Your task to perform on an android device: open sync settings in chrome Image 0: 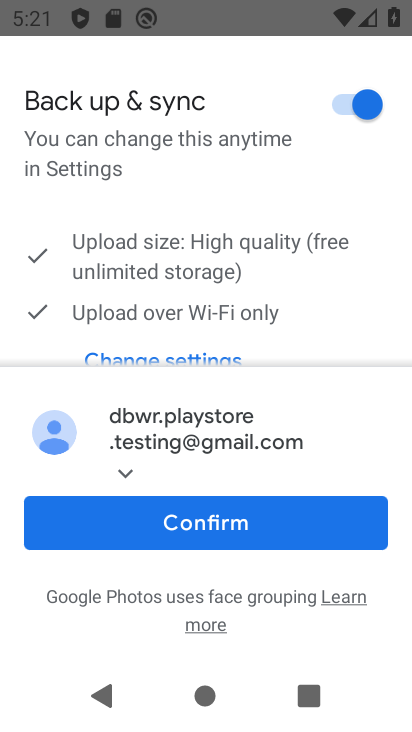
Step 0: press home button
Your task to perform on an android device: open sync settings in chrome Image 1: 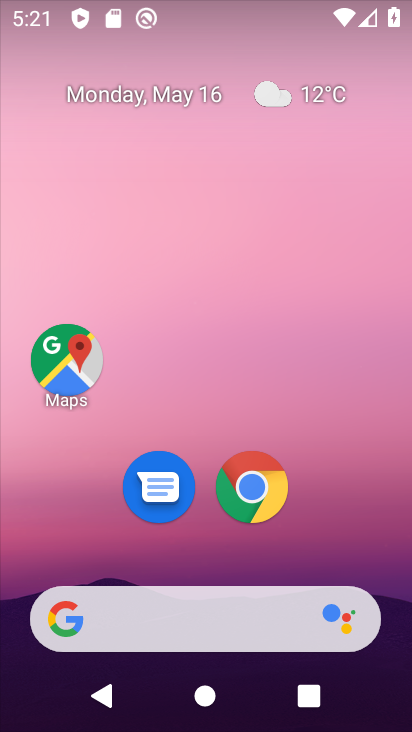
Step 1: click (258, 478)
Your task to perform on an android device: open sync settings in chrome Image 2: 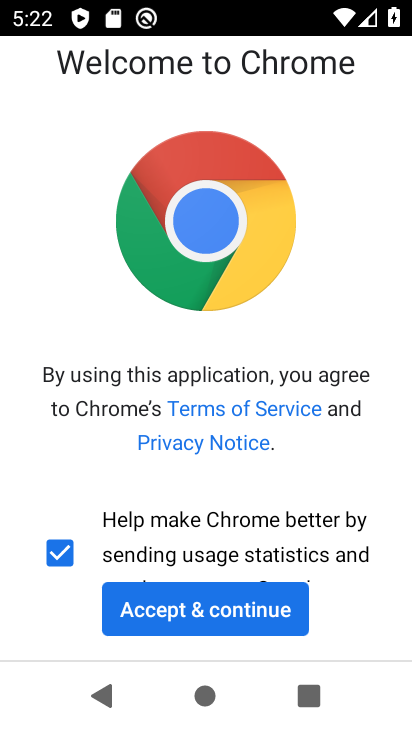
Step 2: click (140, 612)
Your task to perform on an android device: open sync settings in chrome Image 3: 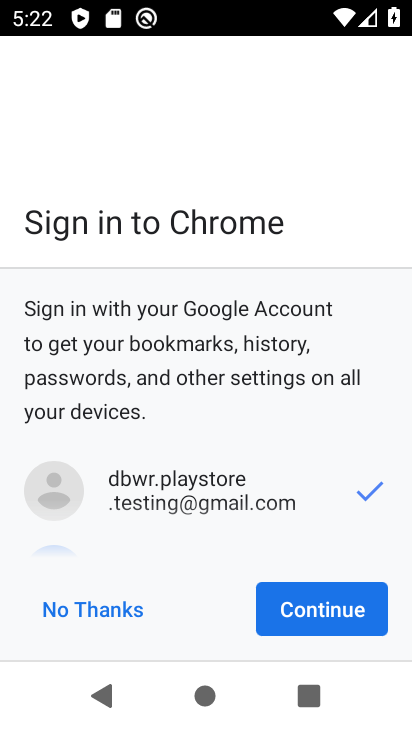
Step 3: click (331, 643)
Your task to perform on an android device: open sync settings in chrome Image 4: 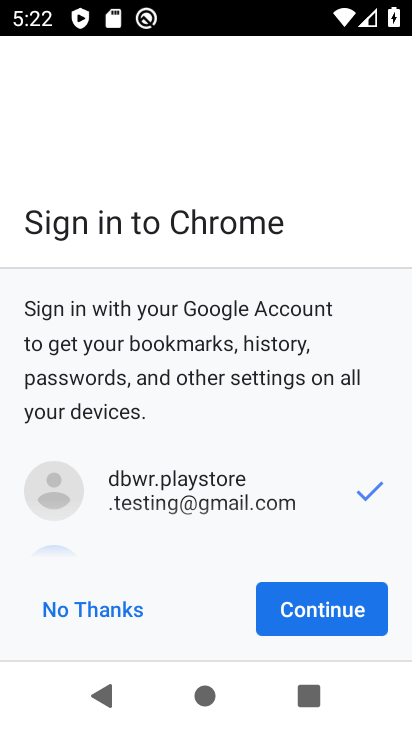
Step 4: click (335, 629)
Your task to perform on an android device: open sync settings in chrome Image 5: 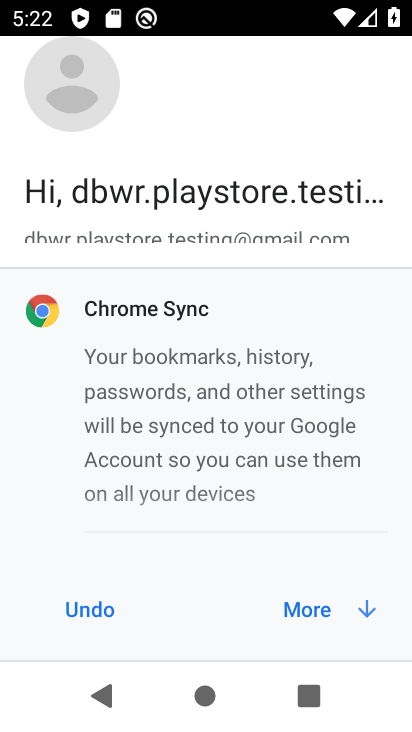
Step 5: click (327, 622)
Your task to perform on an android device: open sync settings in chrome Image 6: 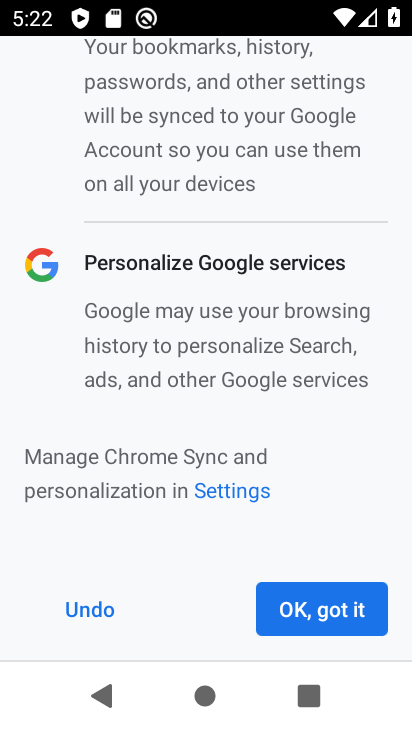
Step 6: click (327, 620)
Your task to perform on an android device: open sync settings in chrome Image 7: 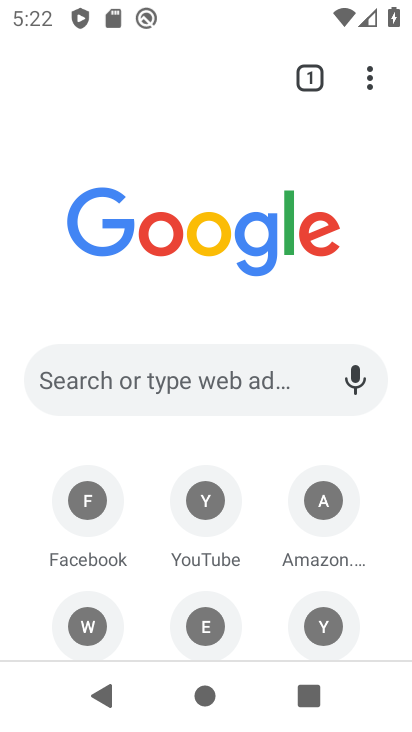
Step 7: drag from (372, 68) to (197, 527)
Your task to perform on an android device: open sync settings in chrome Image 8: 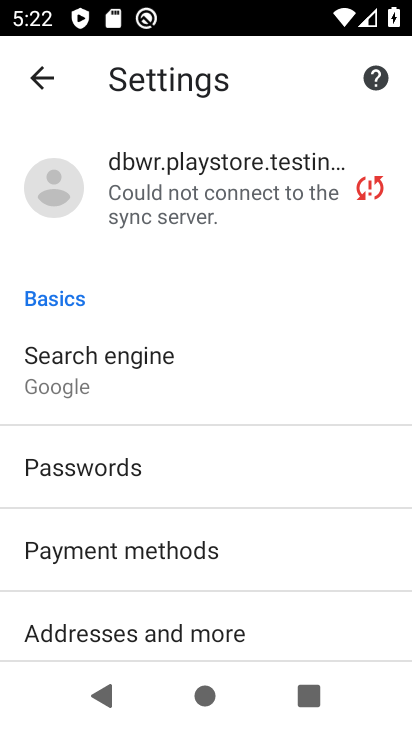
Step 8: drag from (142, 373) to (263, 173)
Your task to perform on an android device: open sync settings in chrome Image 9: 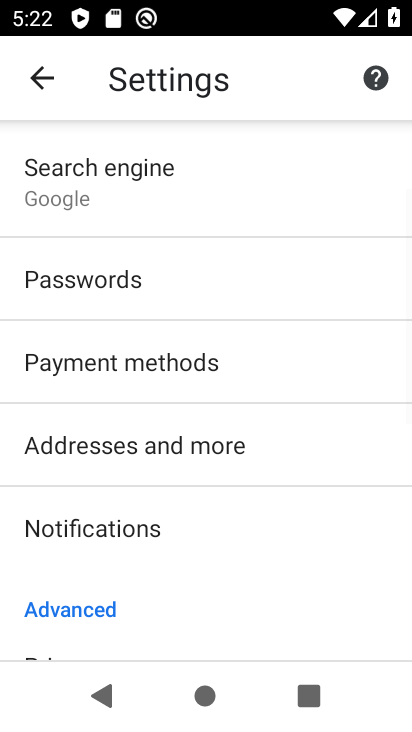
Step 9: drag from (260, 188) to (295, 606)
Your task to perform on an android device: open sync settings in chrome Image 10: 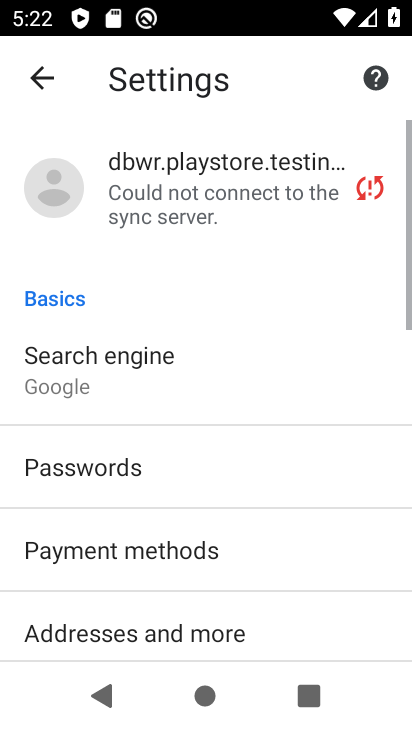
Step 10: click (268, 198)
Your task to perform on an android device: open sync settings in chrome Image 11: 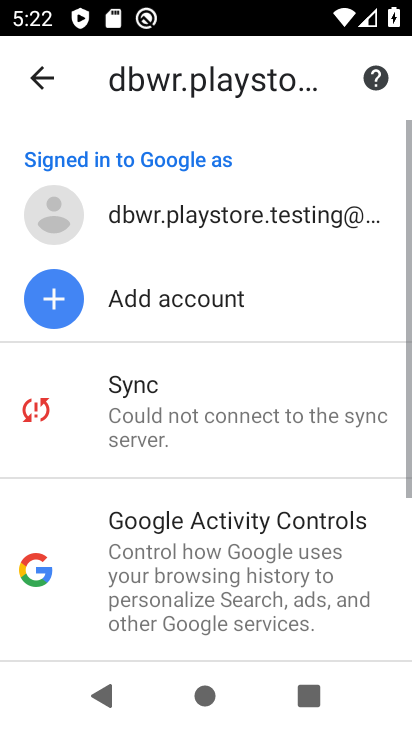
Step 11: click (270, 431)
Your task to perform on an android device: open sync settings in chrome Image 12: 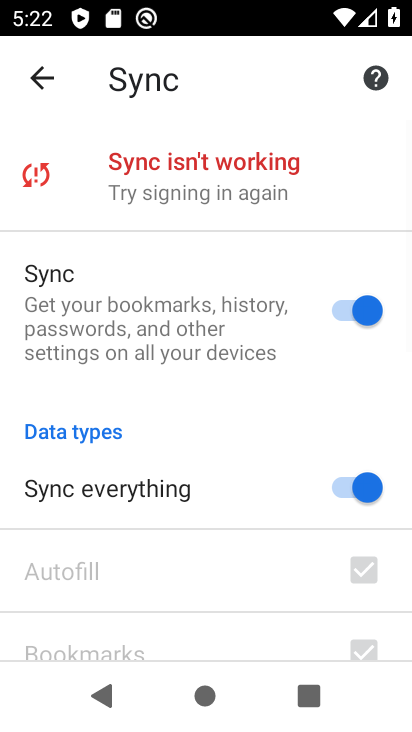
Step 12: task complete